Your task to perform on an android device: clear all cookies in the chrome app Image 0: 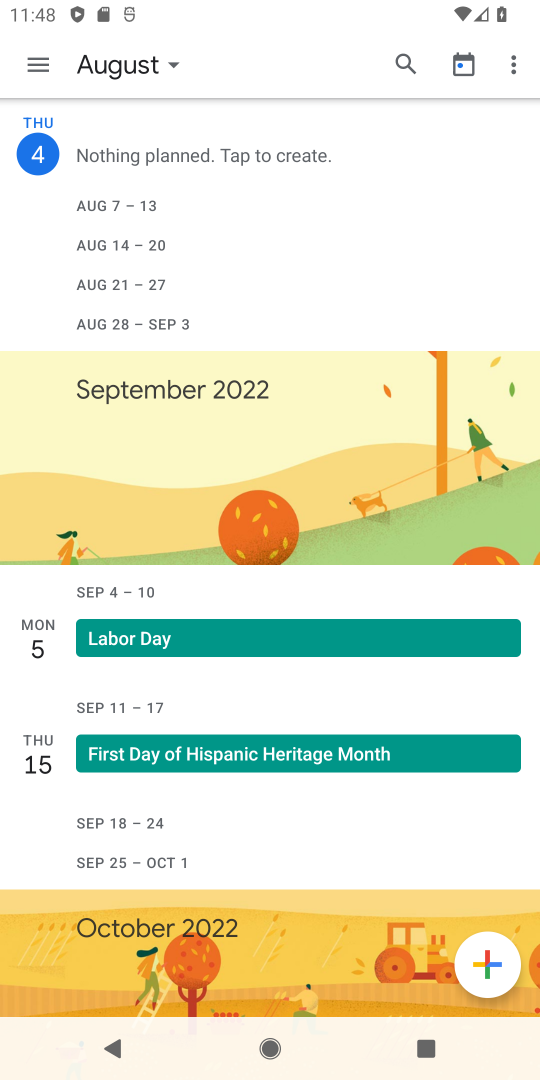
Step 0: press home button
Your task to perform on an android device: clear all cookies in the chrome app Image 1: 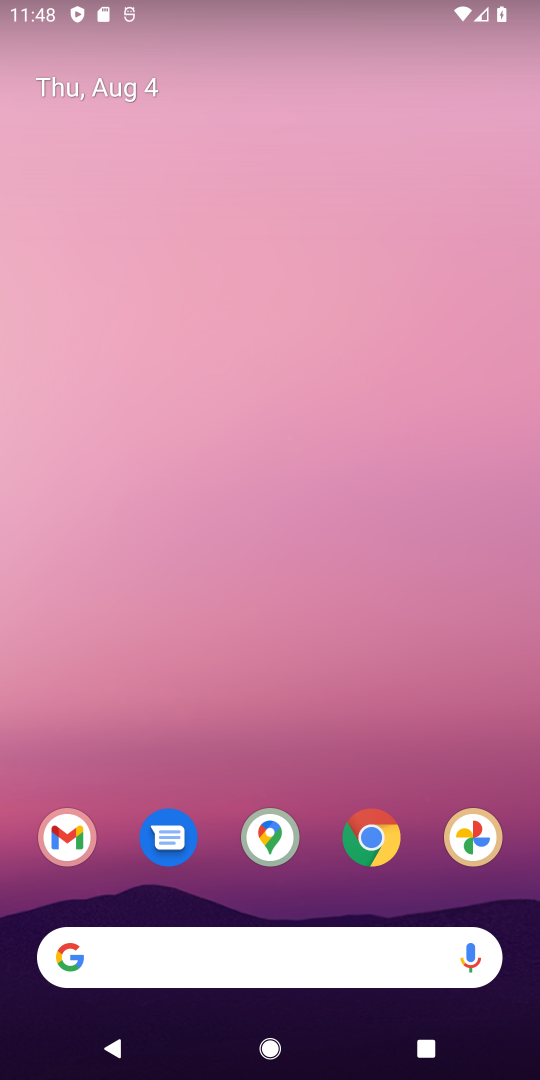
Step 1: click (377, 832)
Your task to perform on an android device: clear all cookies in the chrome app Image 2: 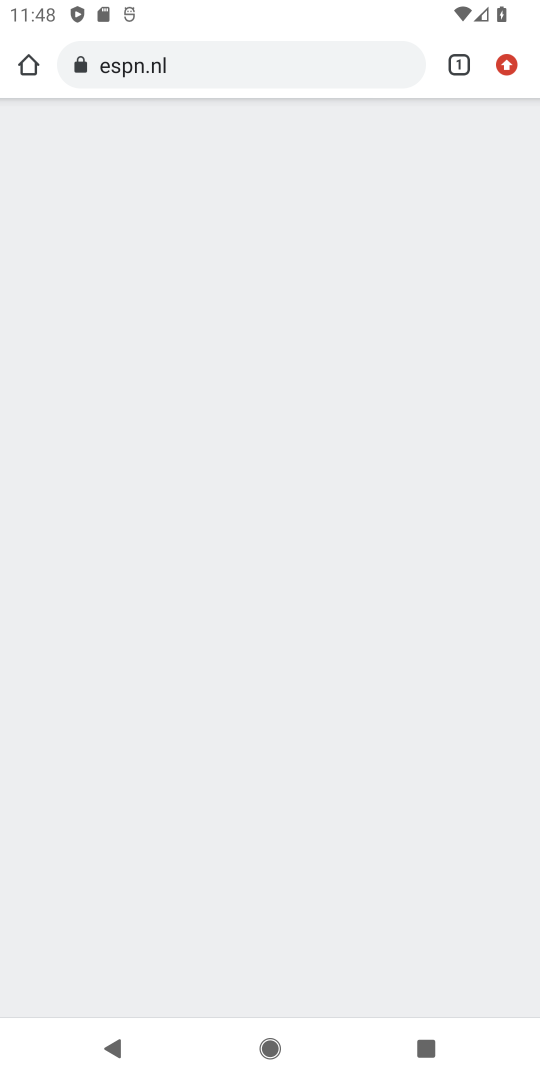
Step 2: click (498, 69)
Your task to perform on an android device: clear all cookies in the chrome app Image 3: 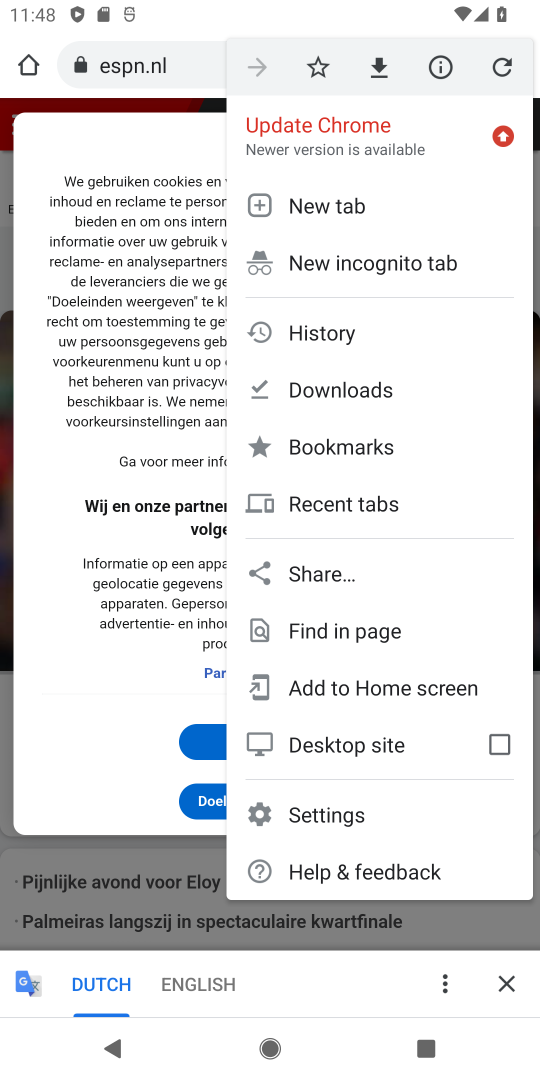
Step 3: click (317, 322)
Your task to perform on an android device: clear all cookies in the chrome app Image 4: 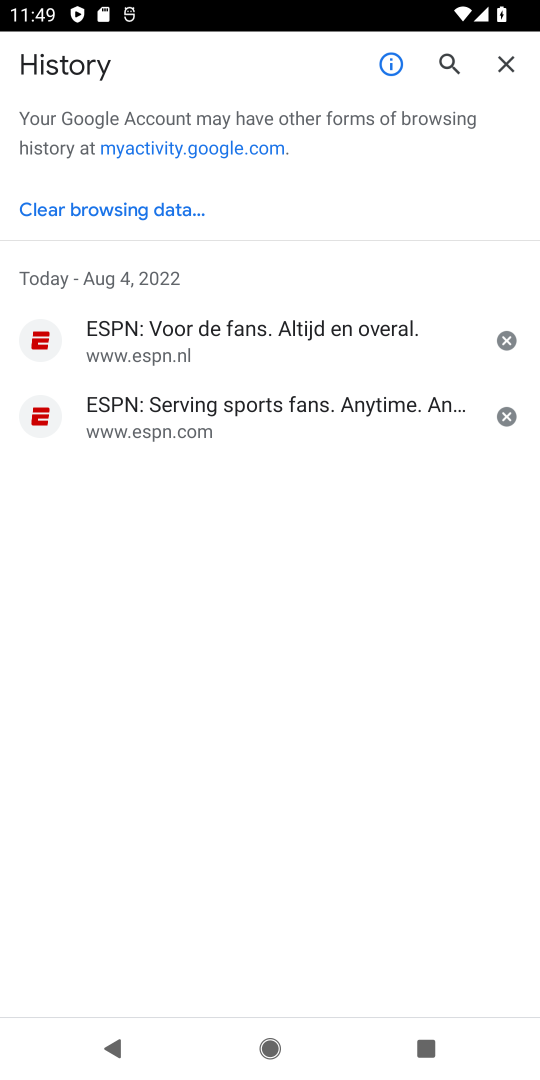
Step 4: click (108, 216)
Your task to perform on an android device: clear all cookies in the chrome app Image 5: 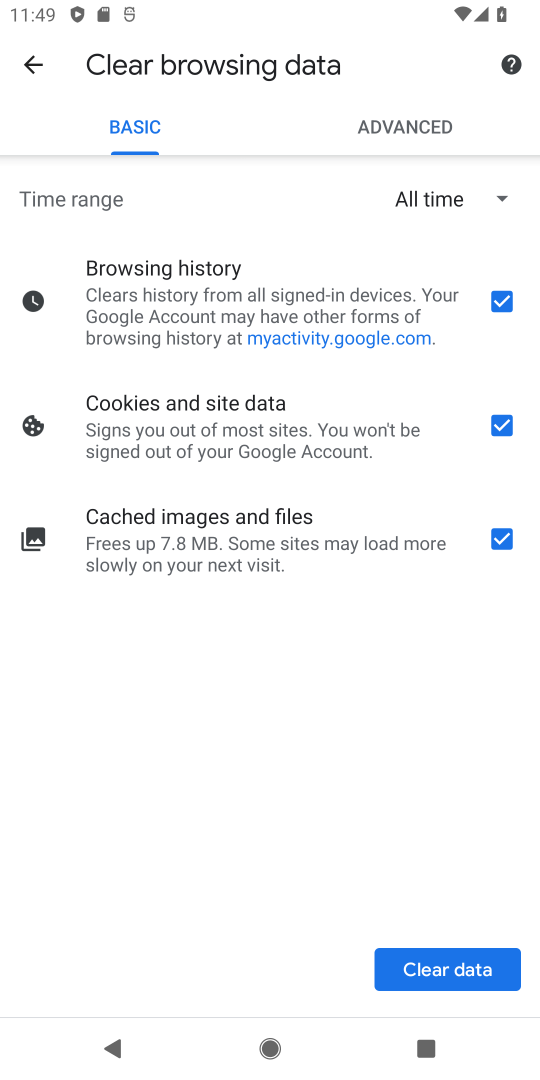
Step 5: click (502, 297)
Your task to perform on an android device: clear all cookies in the chrome app Image 6: 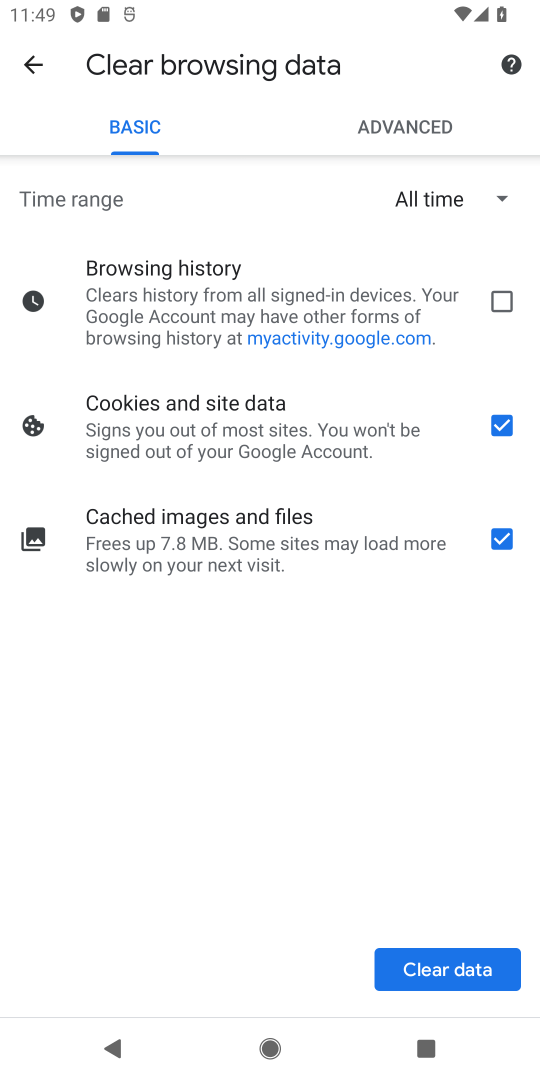
Step 6: click (504, 536)
Your task to perform on an android device: clear all cookies in the chrome app Image 7: 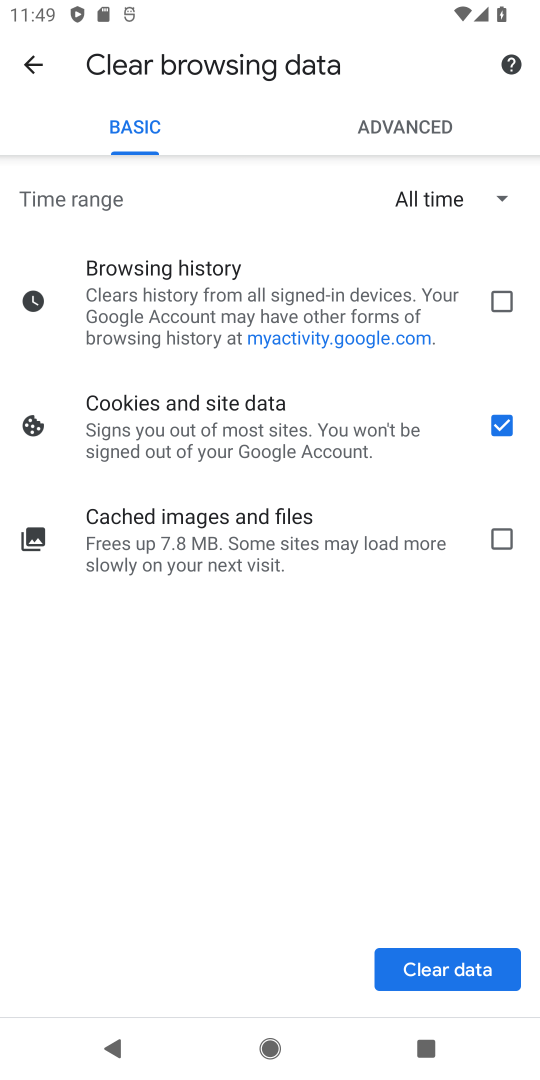
Step 7: click (403, 966)
Your task to perform on an android device: clear all cookies in the chrome app Image 8: 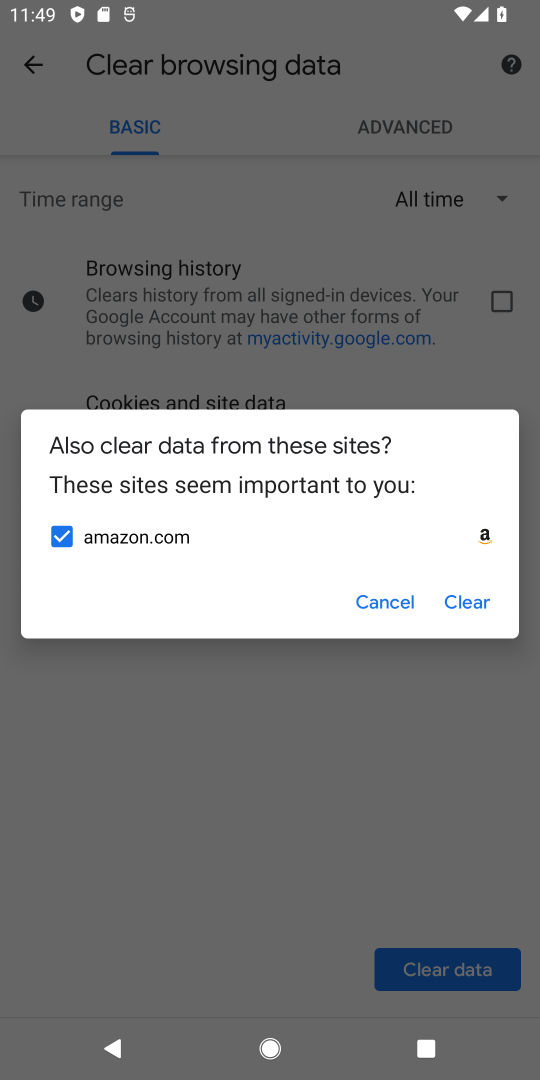
Step 8: click (465, 603)
Your task to perform on an android device: clear all cookies in the chrome app Image 9: 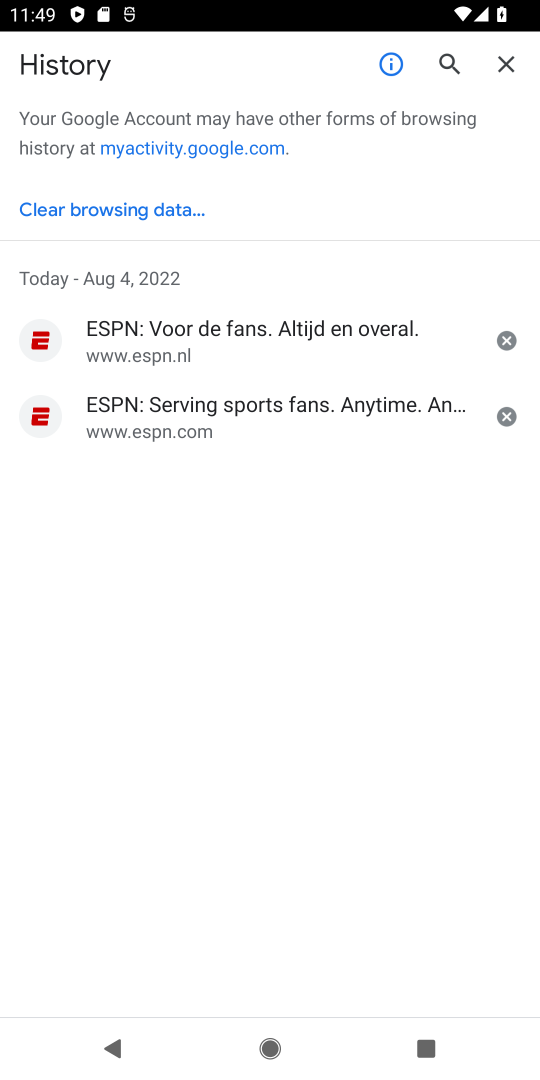
Step 9: task complete